Your task to perform on an android device: open app "Roku - Official Remote Control" (install if not already installed) and go to login screen Image 0: 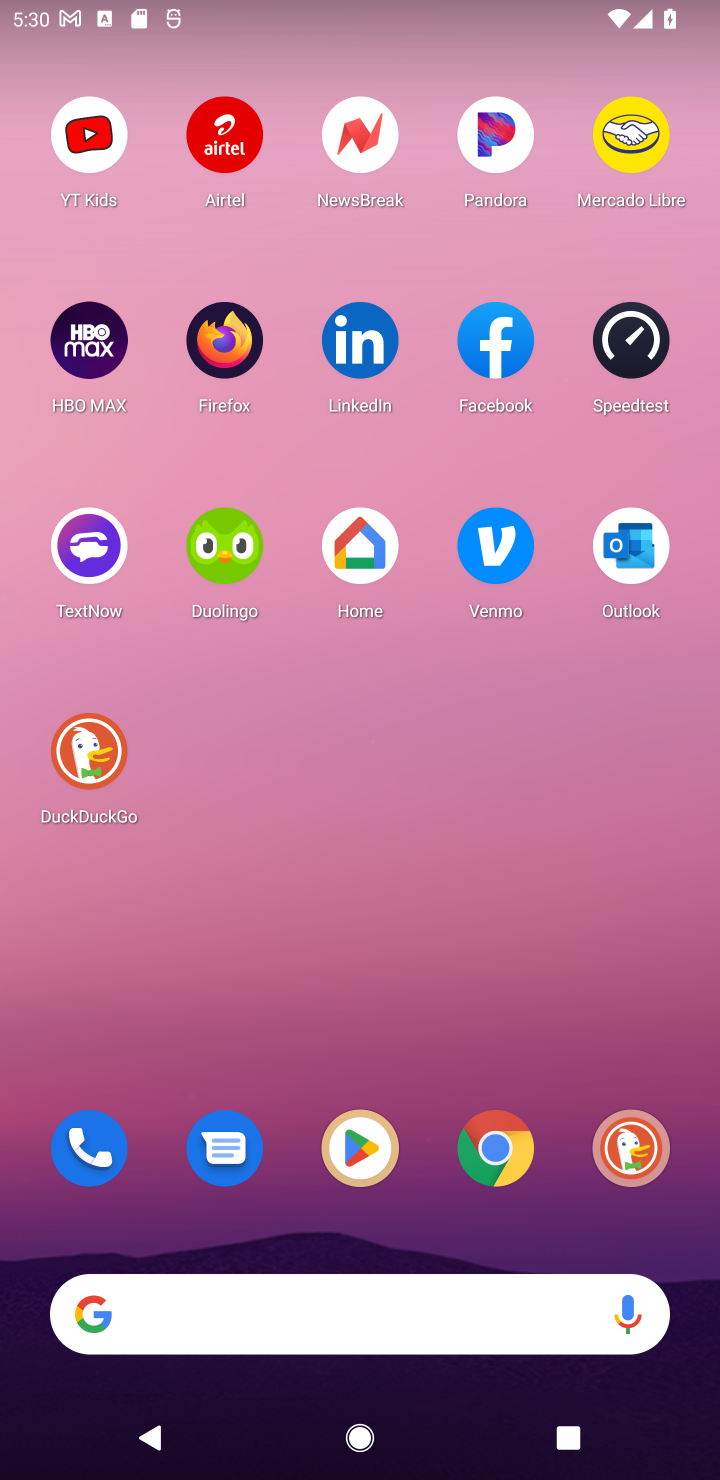
Step 0: click (353, 1158)
Your task to perform on an android device: open app "Roku - Official Remote Control" (install if not already installed) and go to login screen Image 1: 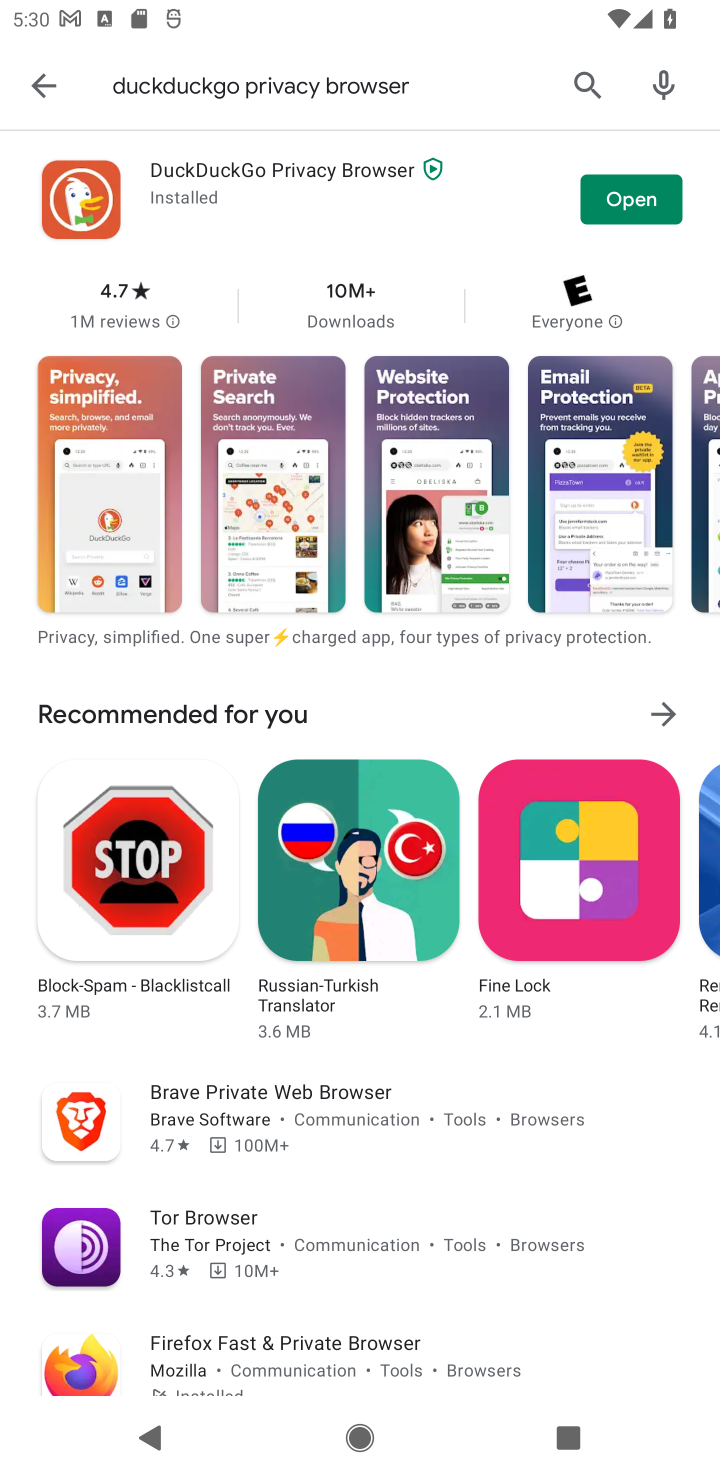
Step 1: click (579, 72)
Your task to perform on an android device: open app "Roku - Official Remote Control" (install if not already installed) and go to login screen Image 2: 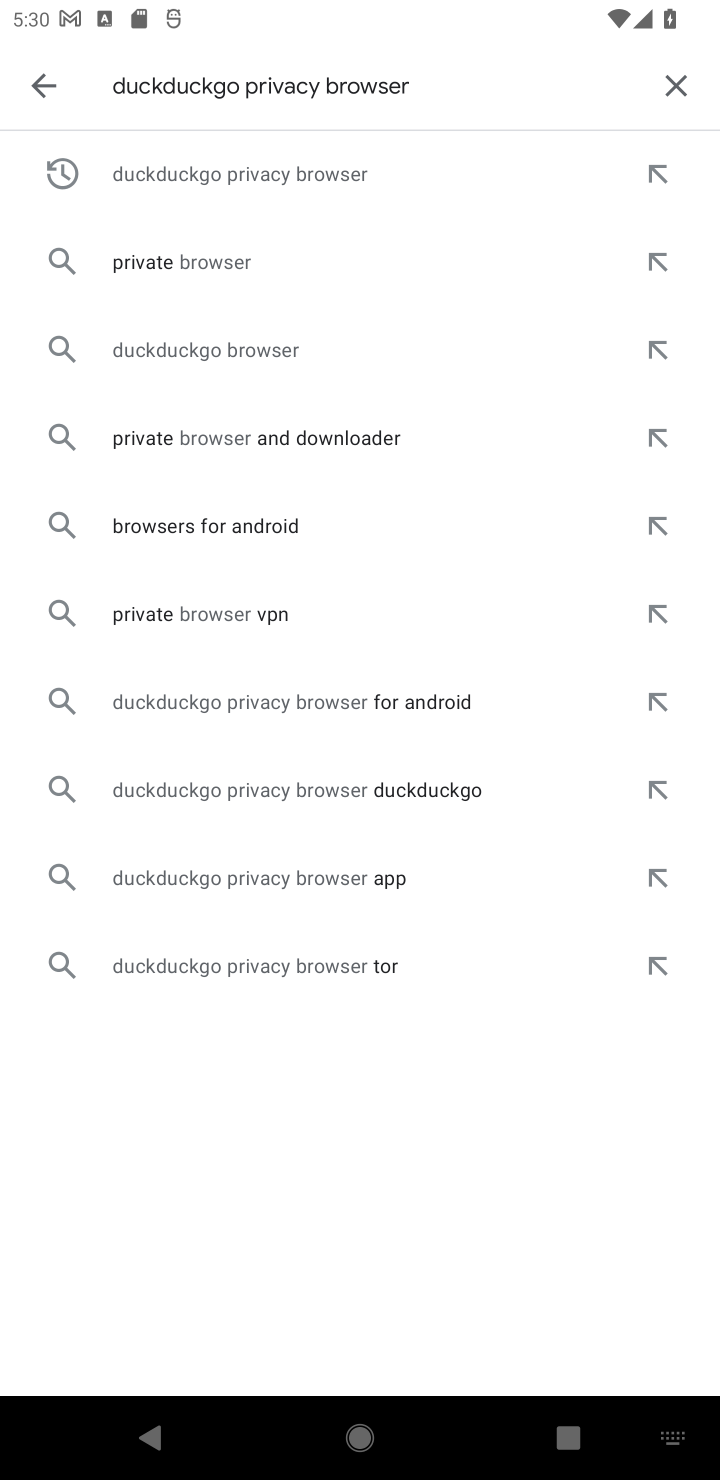
Step 2: click (669, 77)
Your task to perform on an android device: open app "Roku - Official Remote Control" (install if not already installed) and go to login screen Image 3: 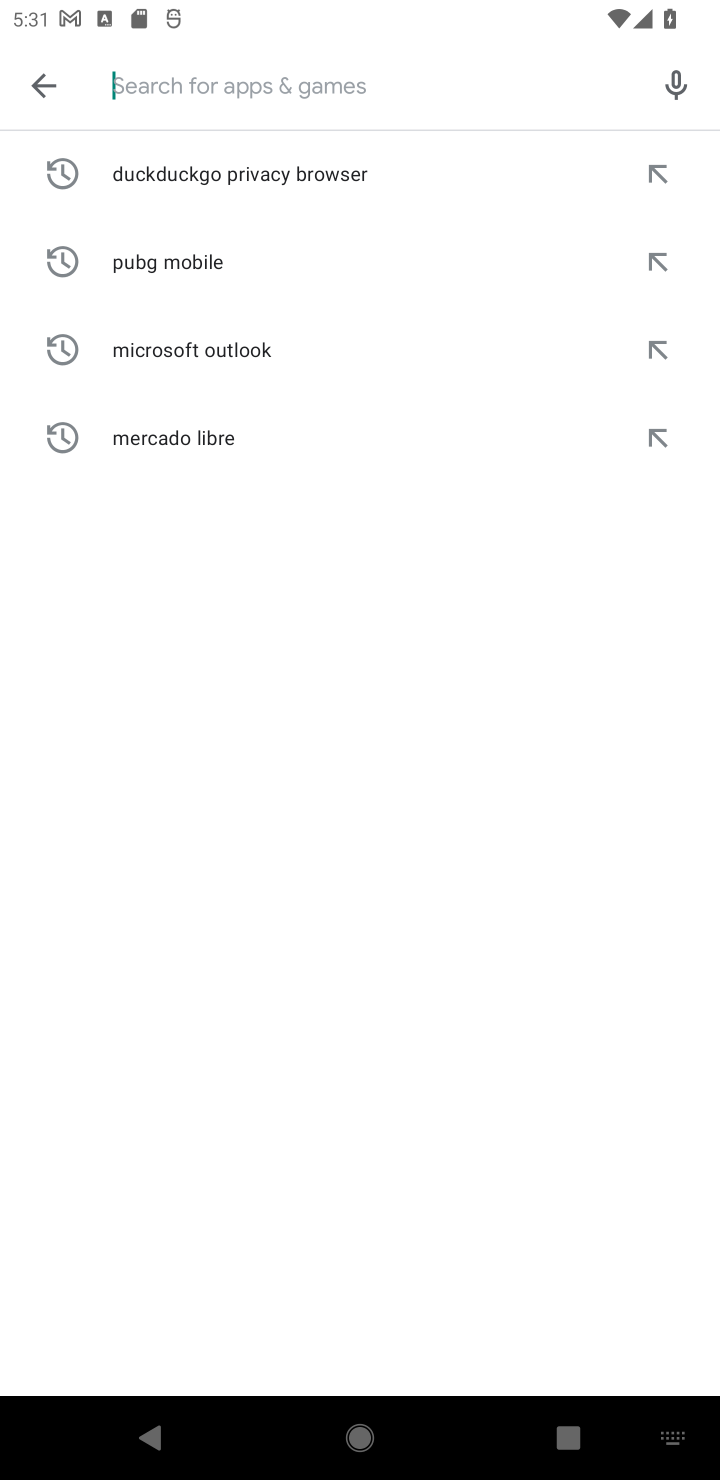
Step 3: type "Roku - Official Remote Control"
Your task to perform on an android device: open app "Roku - Official Remote Control" (install if not already installed) and go to login screen Image 4: 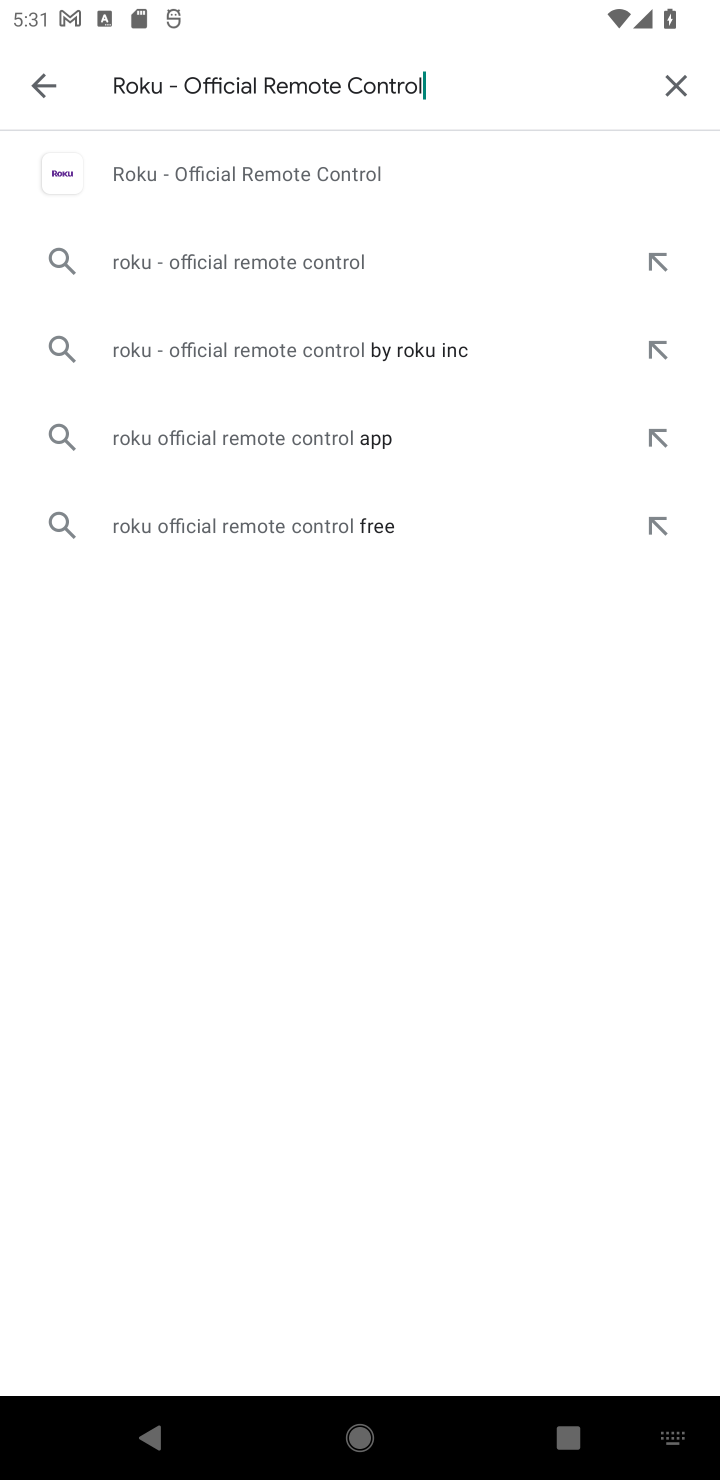
Step 4: click (233, 170)
Your task to perform on an android device: open app "Roku - Official Remote Control" (install if not already installed) and go to login screen Image 5: 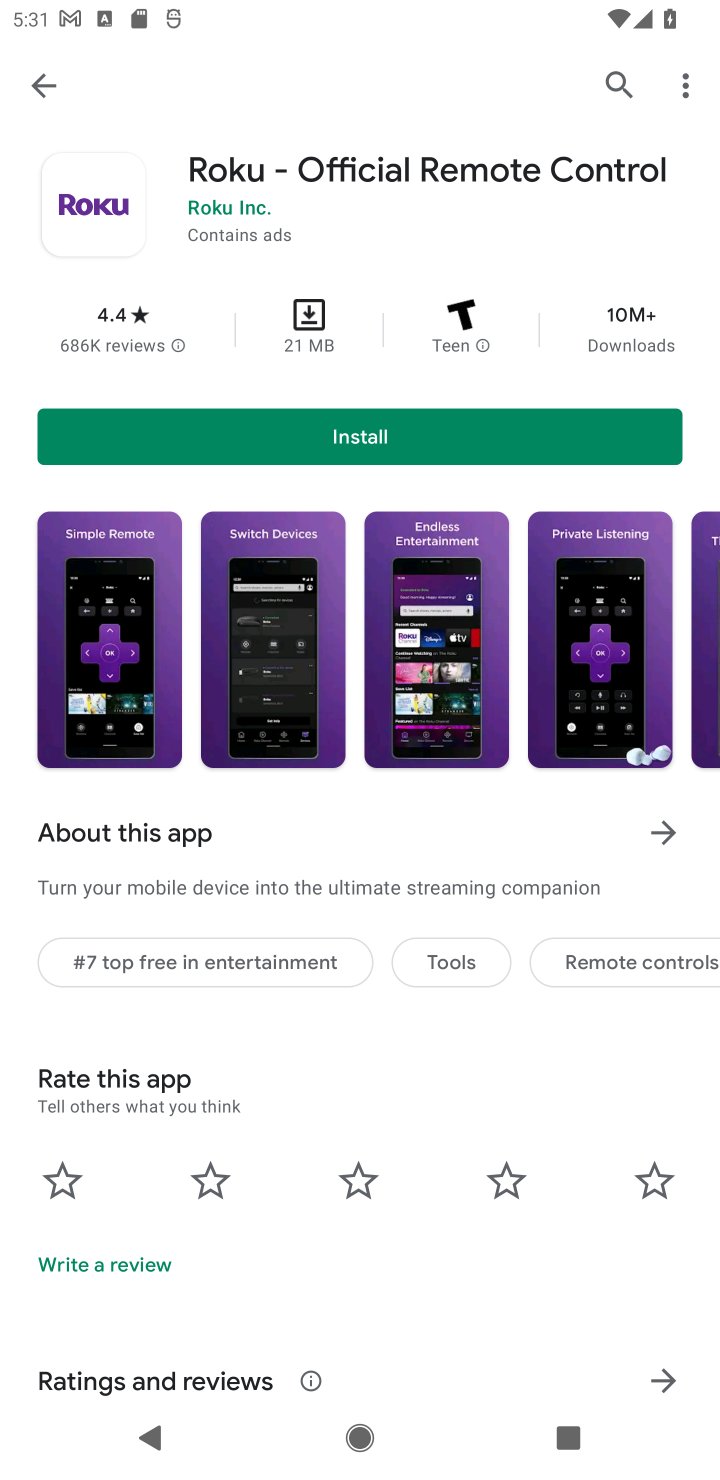
Step 5: click (353, 430)
Your task to perform on an android device: open app "Roku - Official Remote Control" (install if not already installed) and go to login screen Image 6: 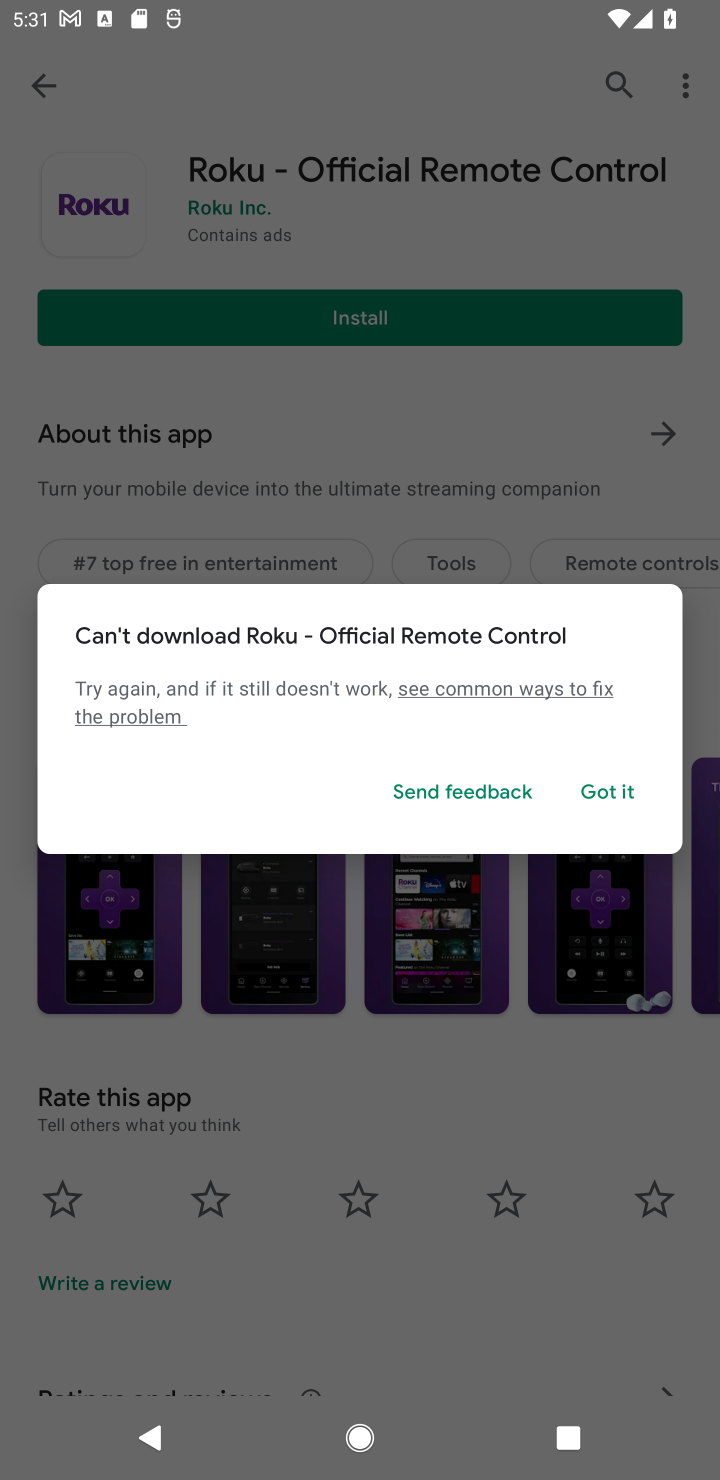
Step 6: click (607, 790)
Your task to perform on an android device: open app "Roku - Official Remote Control" (install if not already installed) and go to login screen Image 7: 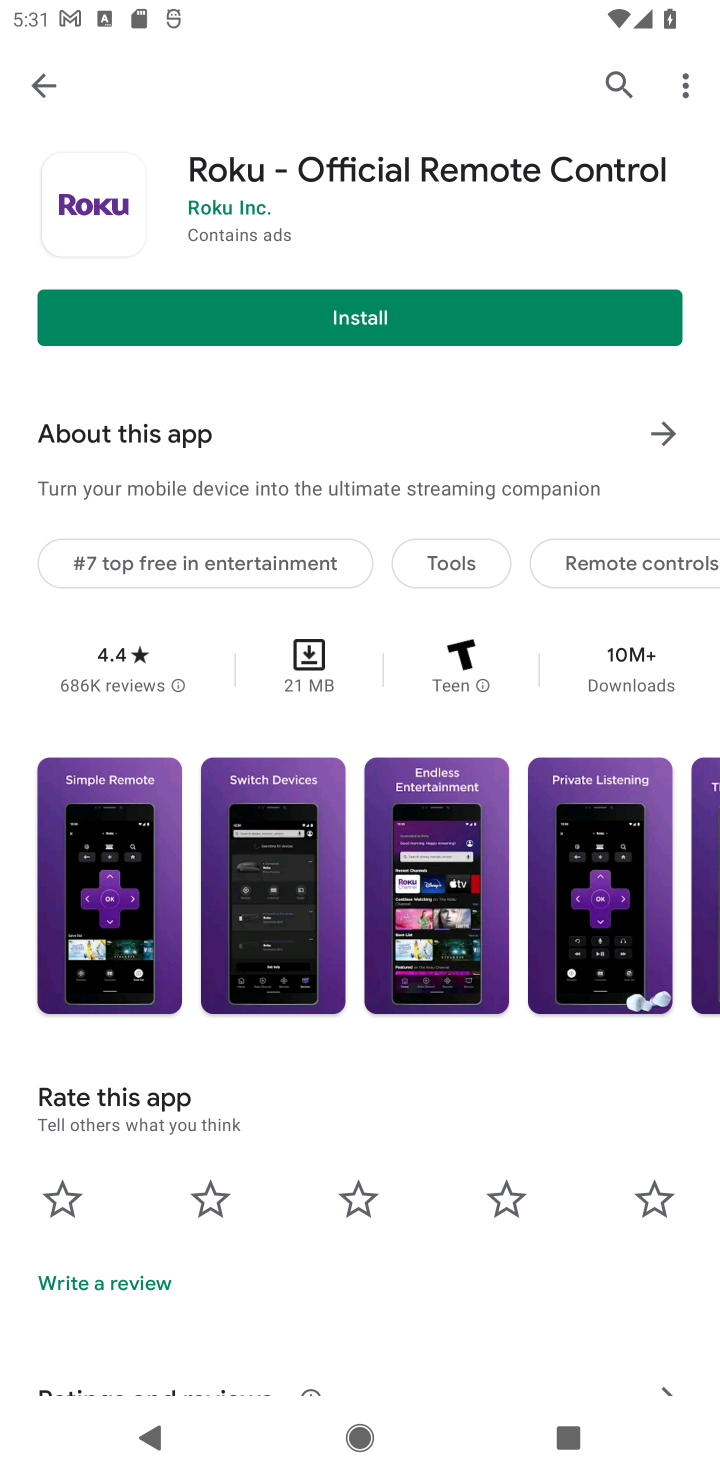
Step 7: click (371, 313)
Your task to perform on an android device: open app "Roku - Official Remote Control" (install if not already installed) and go to login screen Image 8: 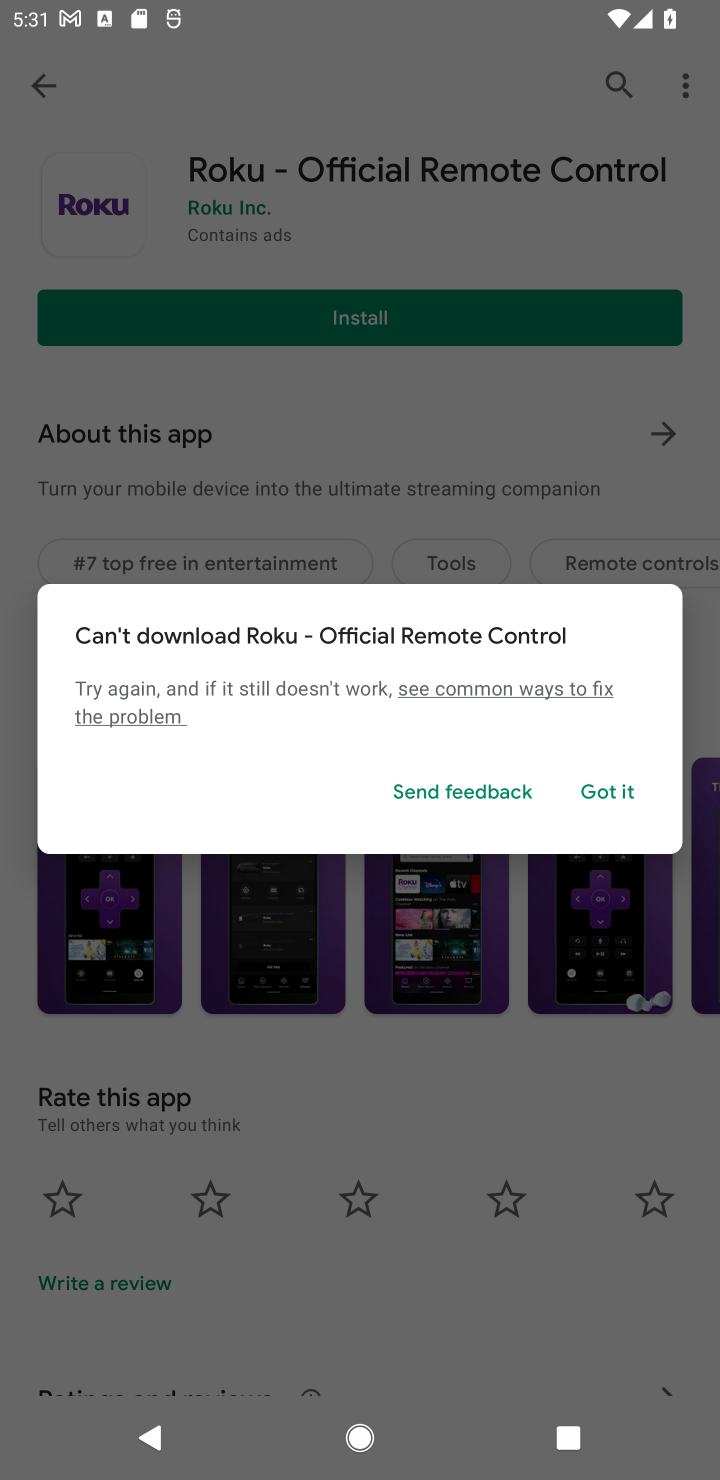
Step 8: task complete